Your task to perform on an android device: Open Google Maps Image 0: 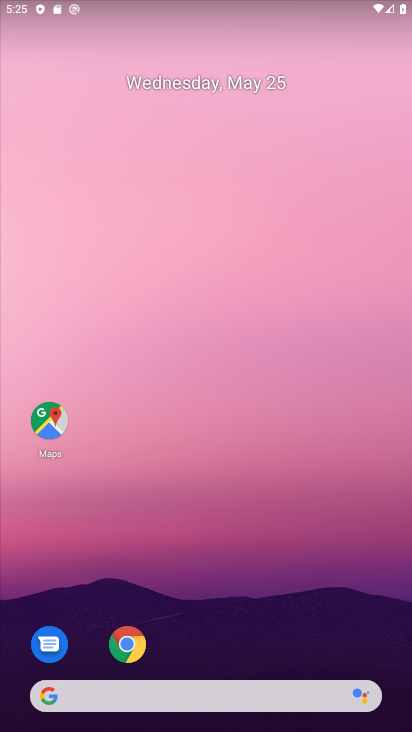
Step 0: press home button
Your task to perform on an android device: Open Google Maps Image 1: 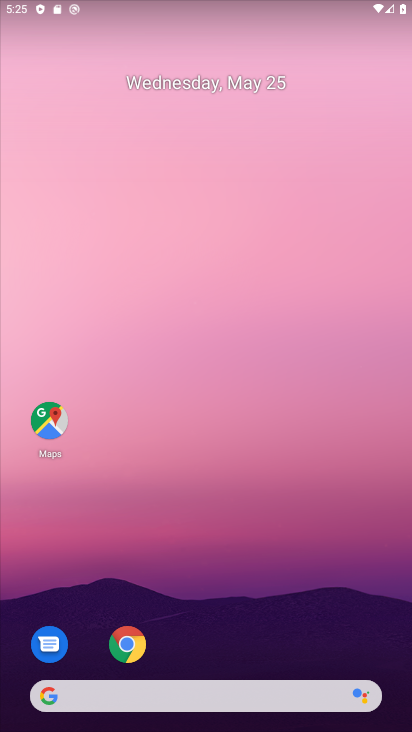
Step 1: click (54, 412)
Your task to perform on an android device: Open Google Maps Image 2: 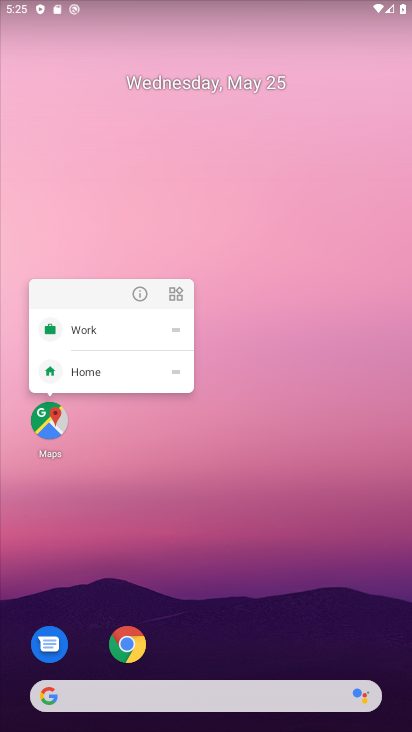
Step 2: click (34, 423)
Your task to perform on an android device: Open Google Maps Image 3: 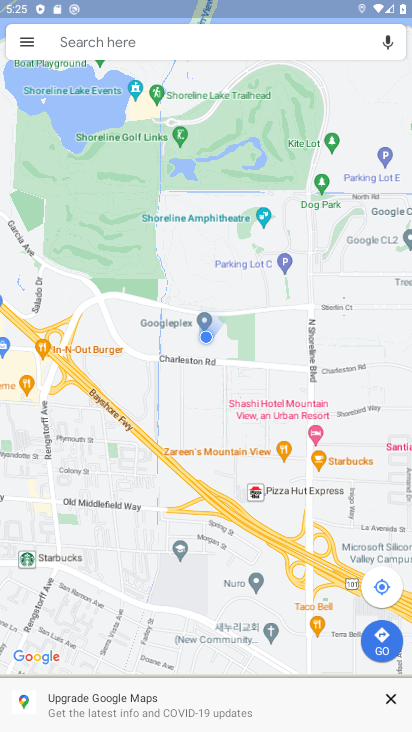
Step 3: task complete